Your task to perform on an android device: Go to Yahoo.com Image 0: 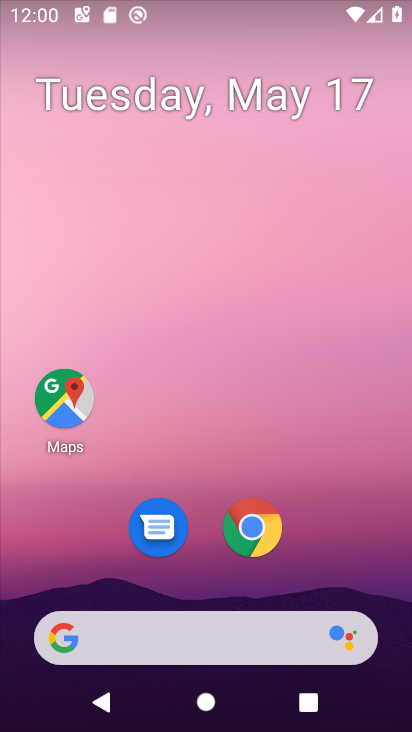
Step 0: click (265, 545)
Your task to perform on an android device: Go to Yahoo.com Image 1: 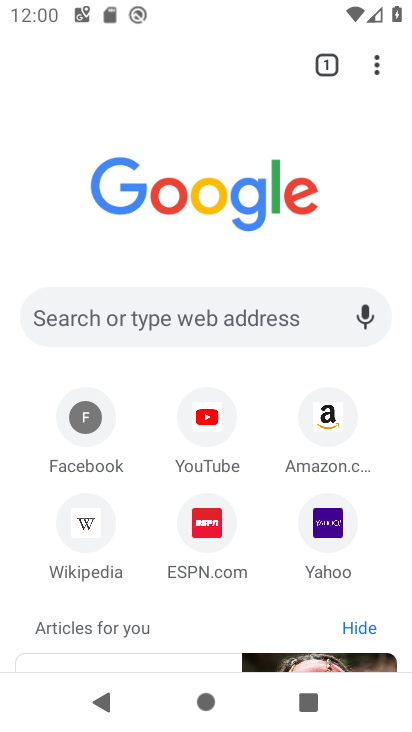
Step 1: click (321, 525)
Your task to perform on an android device: Go to Yahoo.com Image 2: 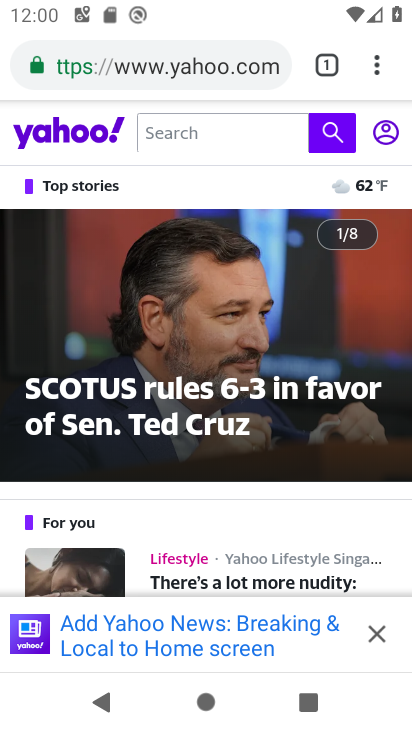
Step 2: task complete